Your task to perform on an android device: toggle sleep mode Image 0: 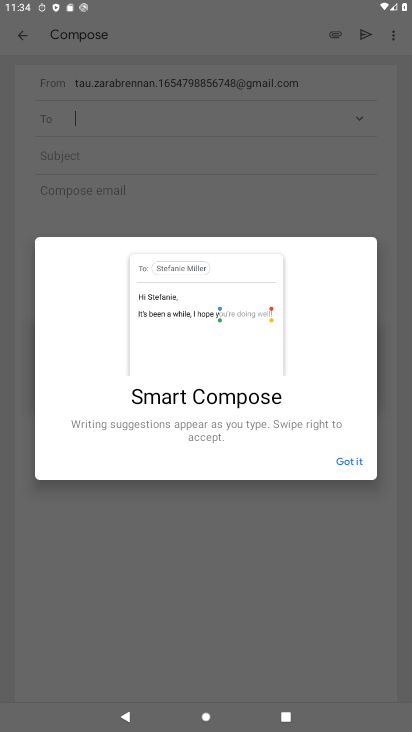
Step 0: press home button
Your task to perform on an android device: toggle sleep mode Image 1: 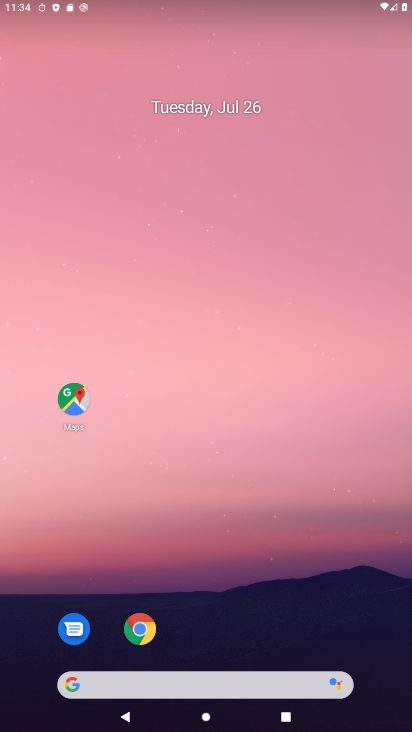
Step 1: drag from (373, 654) to (146, 32)
Your task to perform on an android device: toggle sleep mode Image 2: 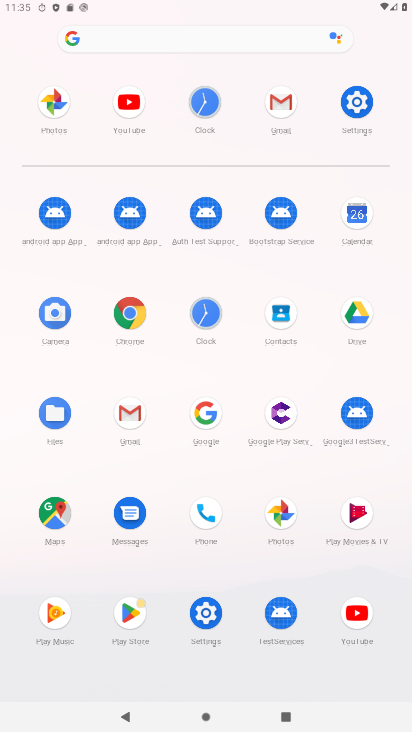
Step 2: click (201, 613)
Your task to perform on an android device: toggle sleep mode Image 3: 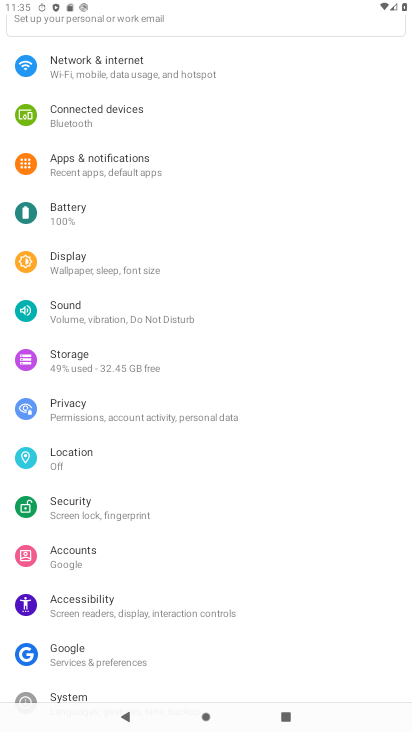
Step 3: task complete